Your task to perform on an android device: What is the news today? Image 0: 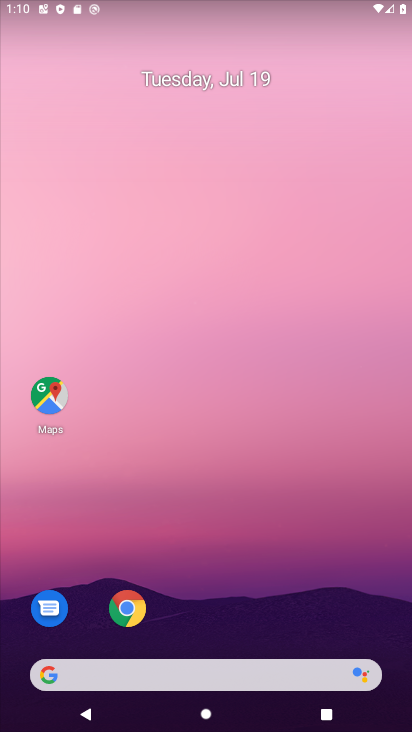
Step 0: drag from (207, 557) to (265, 97)
Your task to perform on an android device: What is the news today? Image 1: 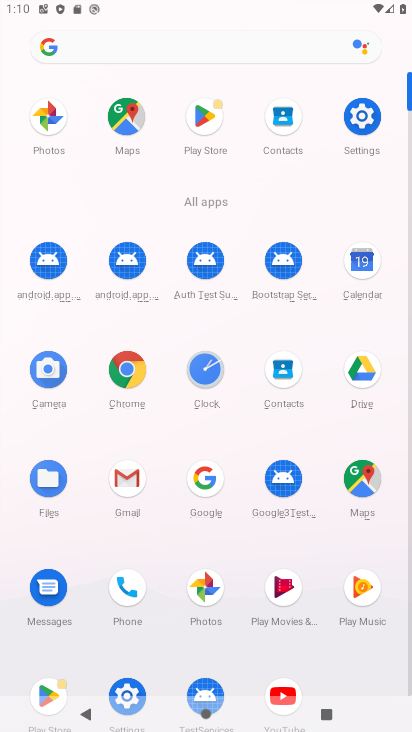
Step 1: click (207, 475)
Your task to perform on an android device: What is the news today? Image 2: 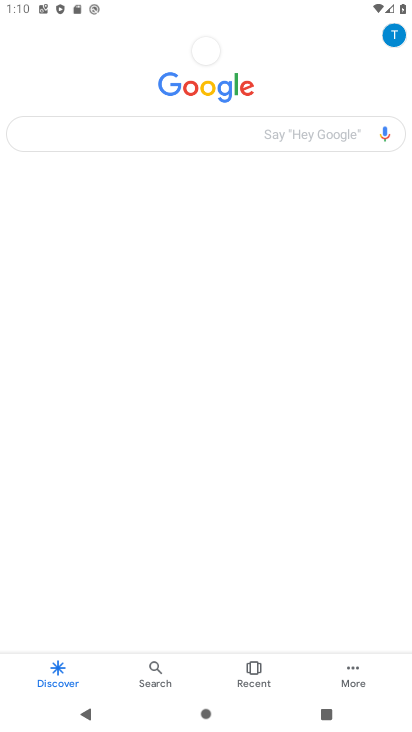
Step 2: click (156, 134)
Your task to perform on an android device: What is the news today? Image 3: 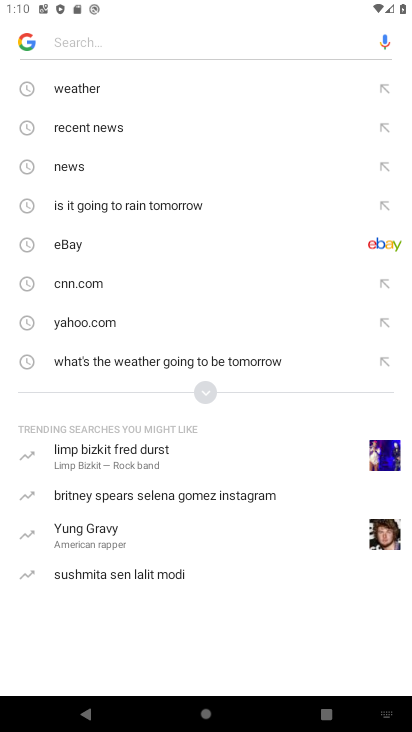
Step 3: click (119, 163)
Your task to perform on an android device: What is the news today? Image 4: 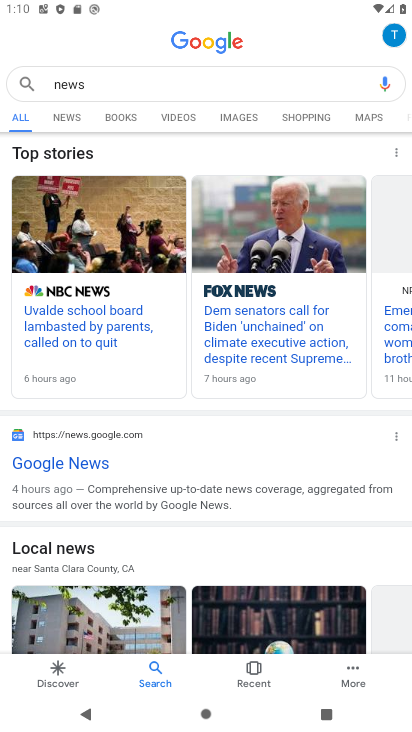
Step 4: task complete